Your task to perform on an android device: Open a new Chrome incognito tab Image 0: 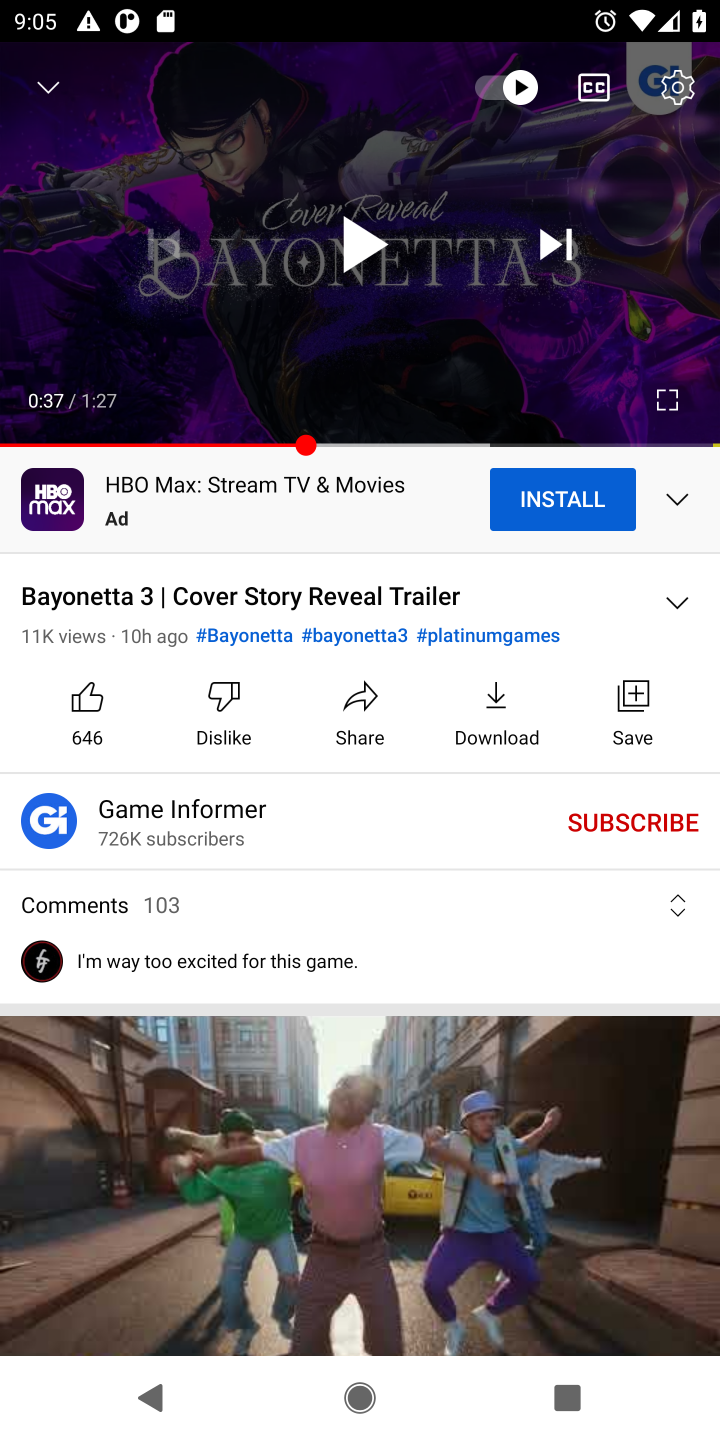
Step 0: press home button
Your task to perform on an android device: Open a new Chrome incognito tab Image 1: 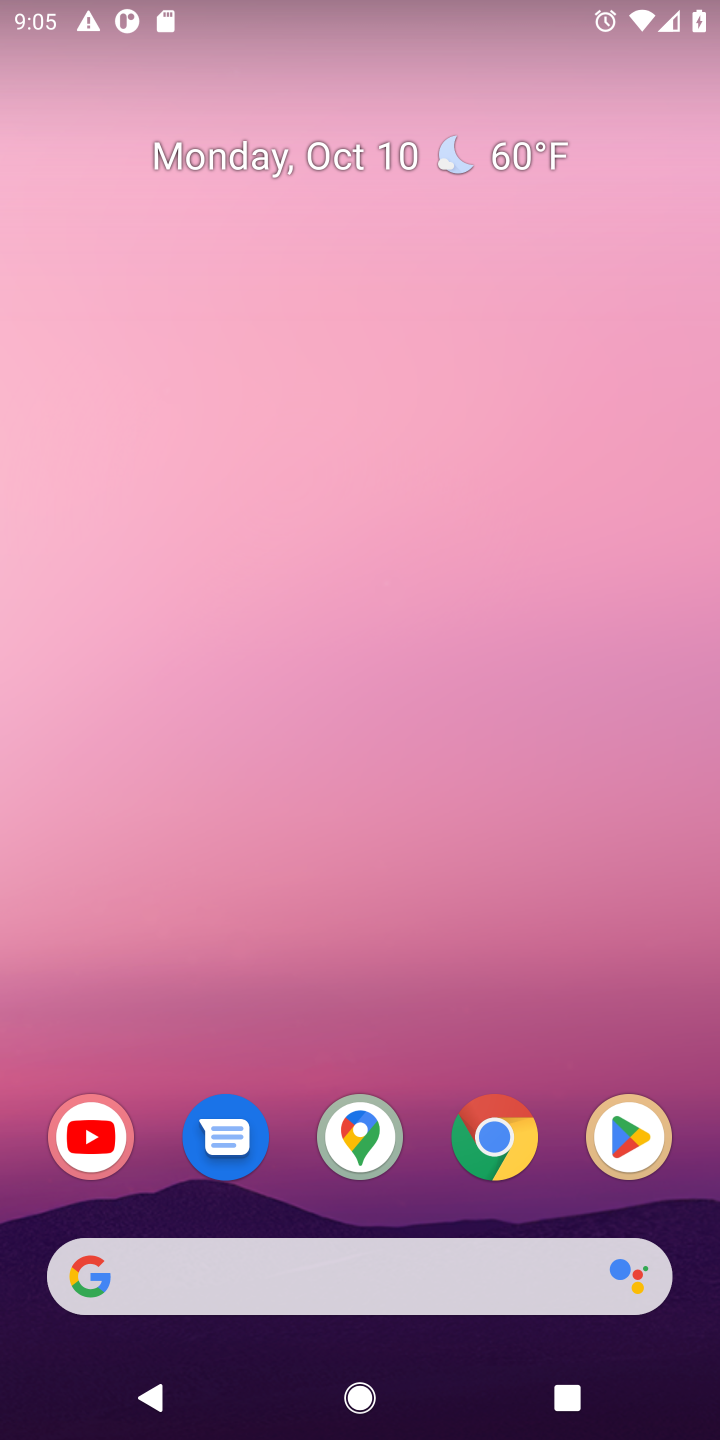
Step 1: click (487, 1136)
Your task to perform on an android device: Open a new Chrome incognito tab Image 2: 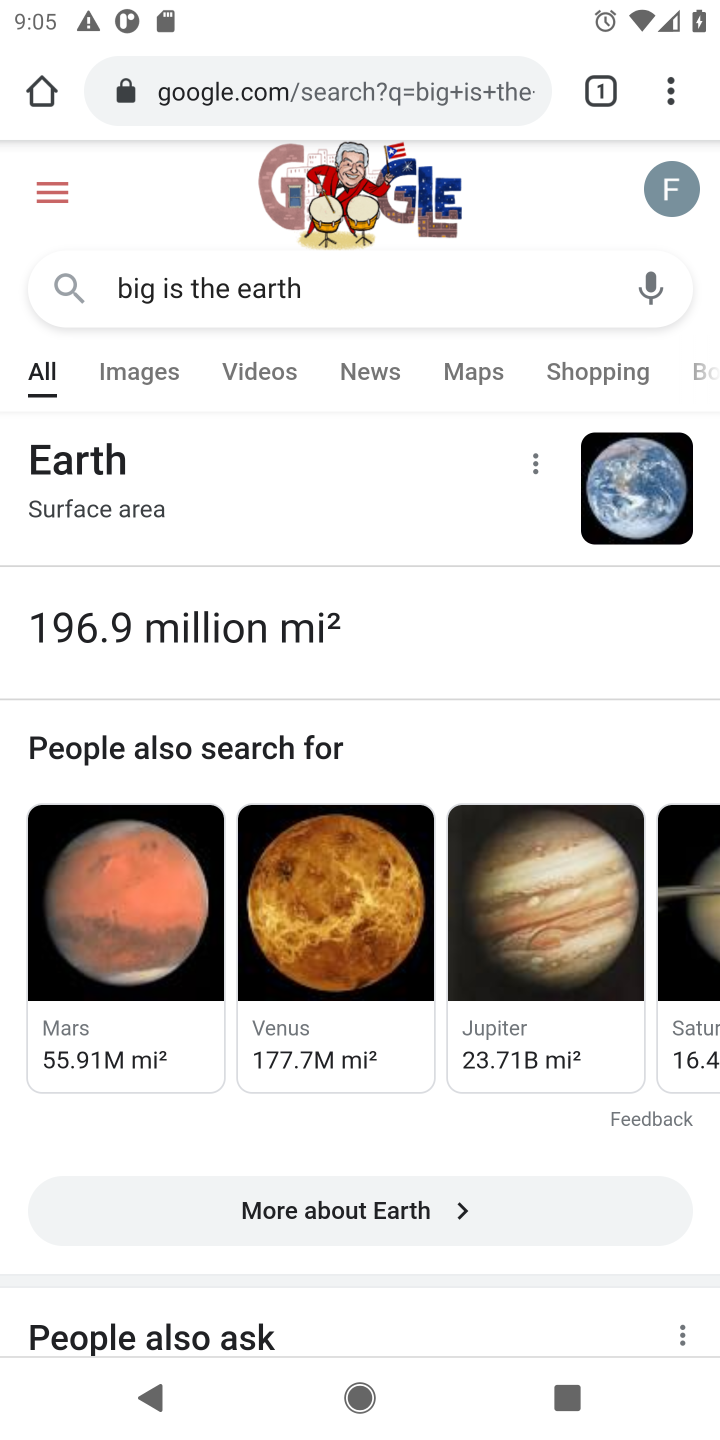
Step 2: click (673, 100)
Your task to perform on an android device: Open a new Chrome incognito tab Image 3: 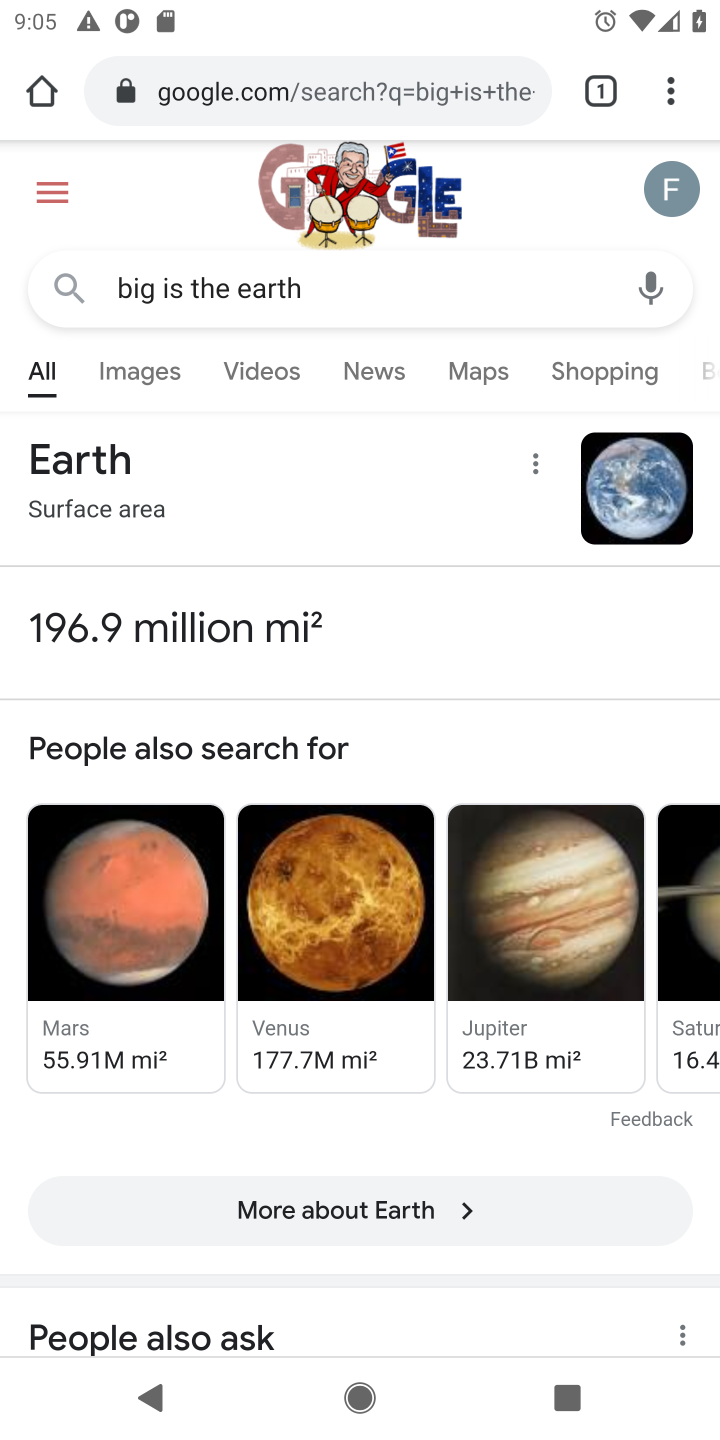
Step 3: click (661, 102)
Your task to perform on an android device: Open a new Chrome incognito tab Image 4: 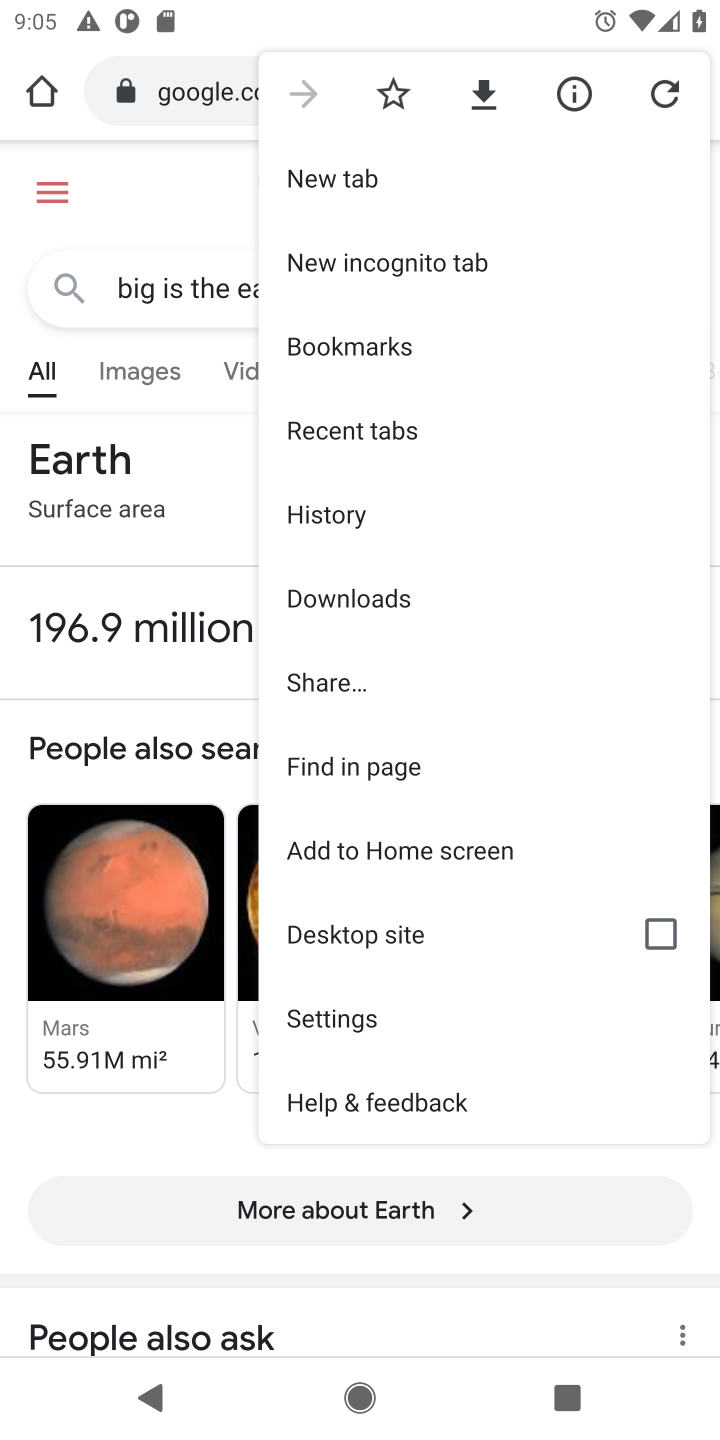
Step 4: click (343, 265)
Your task to perform on an android device: Open a new Chrome incognito tab Image 5: 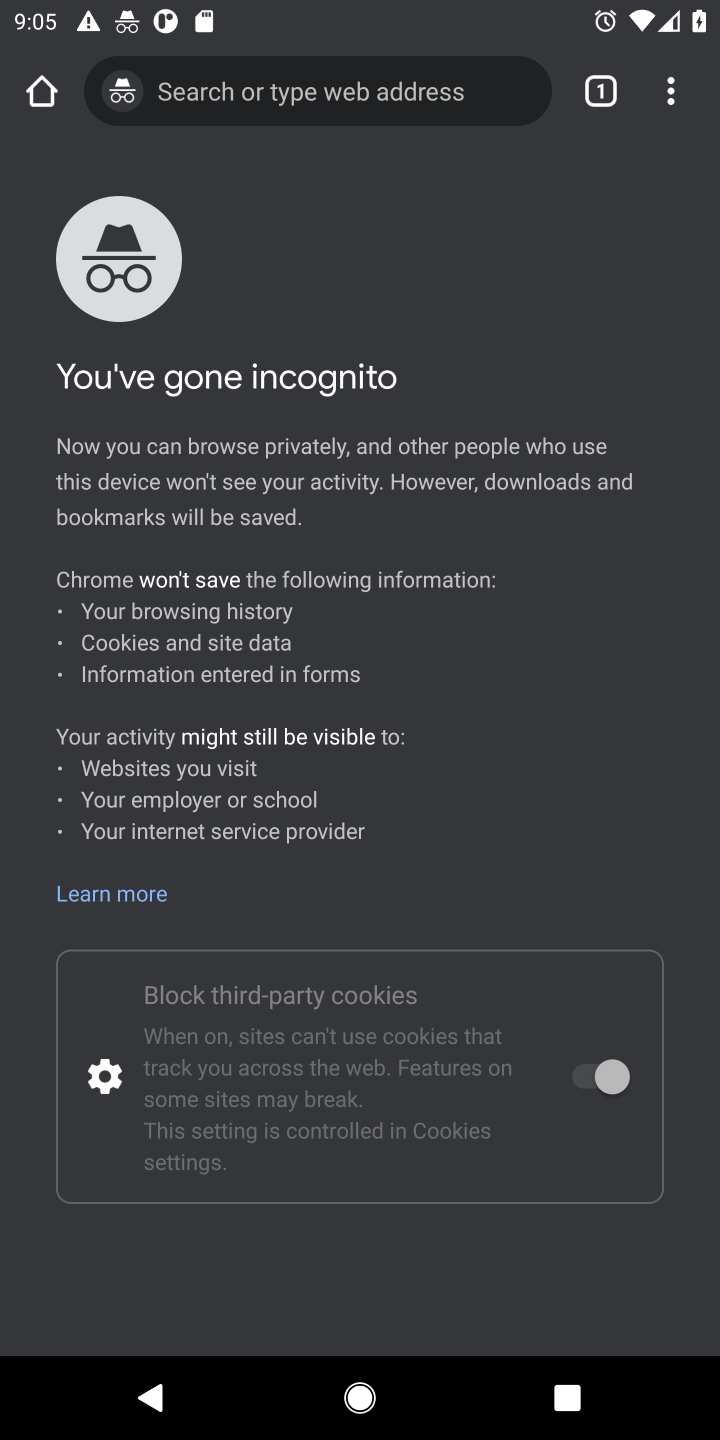
Step 5: task complete